Your task to perform on an android device: Open Google Chrome and open the bookmarks view Image 0: 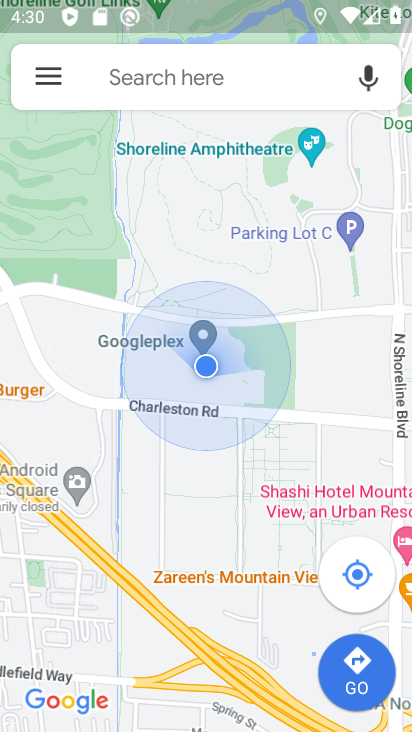
Step 0: press home button
Your task to perform on an android device: Open Google Chrome and open the bookmarks view Image 1: 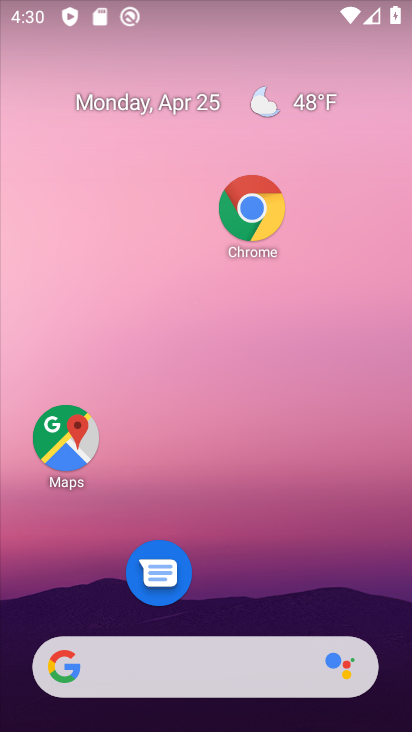
Step 1: click (249, 242)
Your task to perform on an android device: Open Google Chrome and open the bookmarks view Image 2: 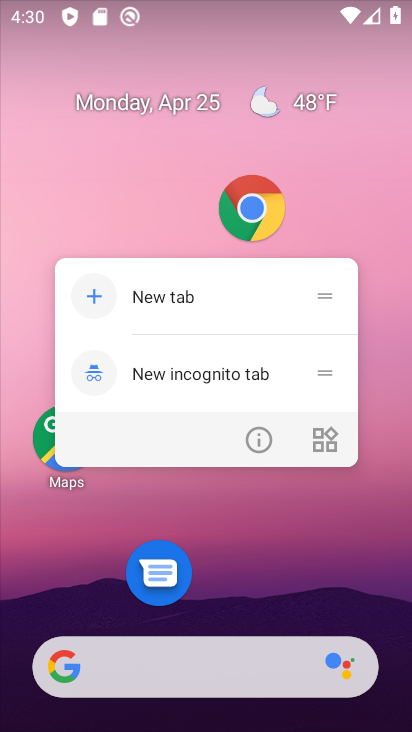
Step 2: click (249, 242)
Your task to perform on an android device: Open Google Chrome and open the bookmarks view Image 3: 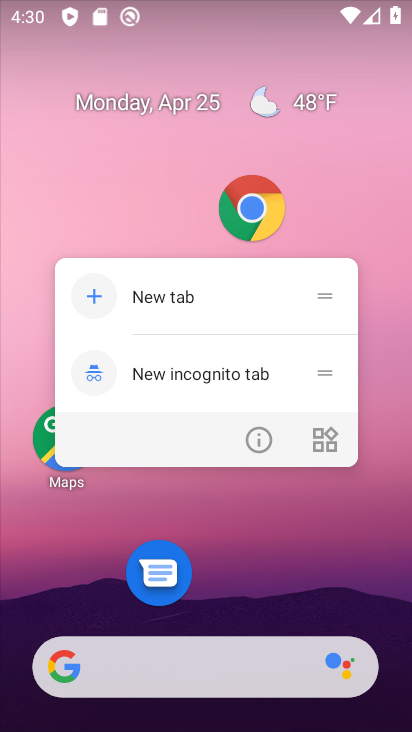
Step 3: click (249, 193)
Your task to perform on an android device: Open Google Chrome and open the bookmarks view Image 4: 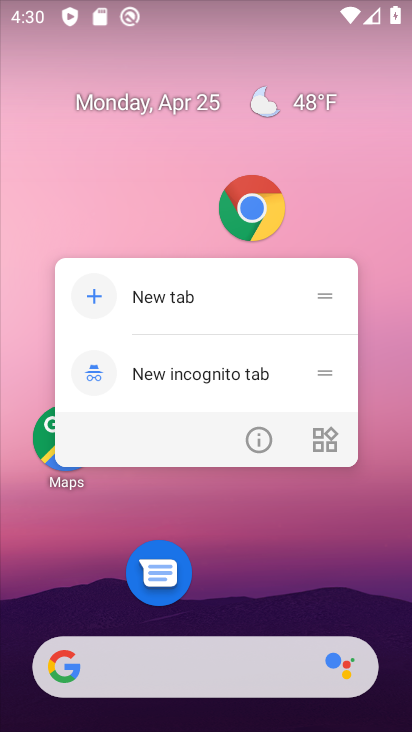
Step 4: click (249, 193)
Your task to perform on an android device: Open Google Chrome and open the bookmarks view Image 5: 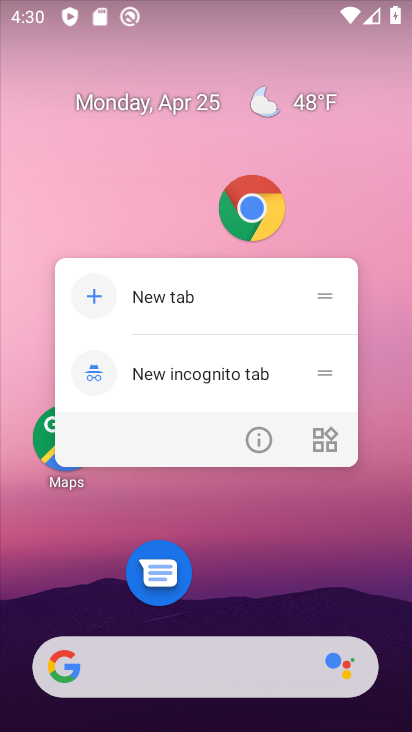
Step 5: click (247, 211)
Your task to perform on an android device: Open Google Chrome and open the bookmarks view Image 6: 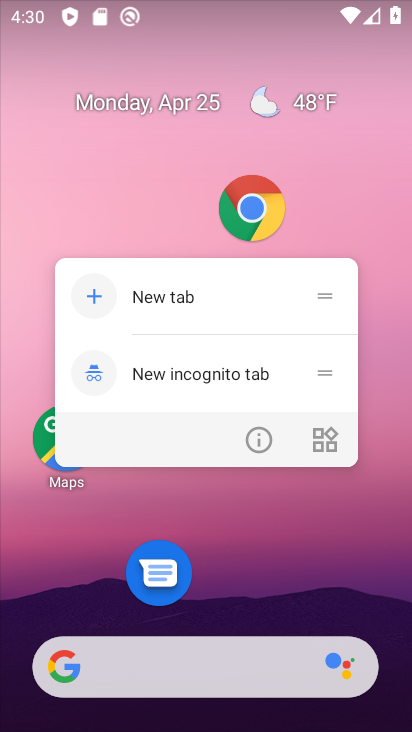
Step 6: click (248, 200)
Your task to perform on an android device: Open Google Chrome and open the bookmarks view Image 7: 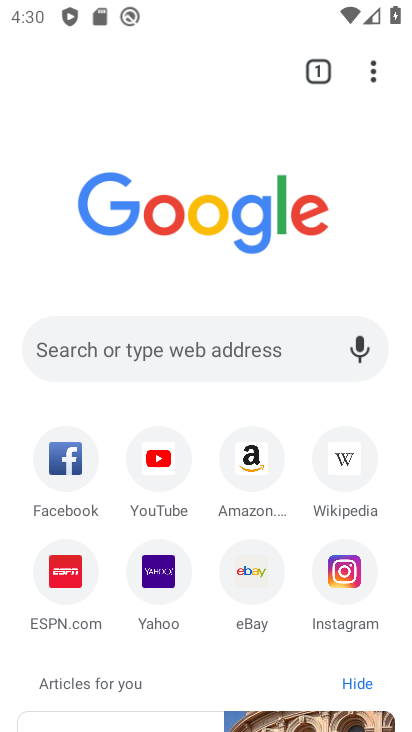
Step 7: click (374, 72)
Your task to perform on an android device: Open Google Chrome and open the bookmarks view Image 8: 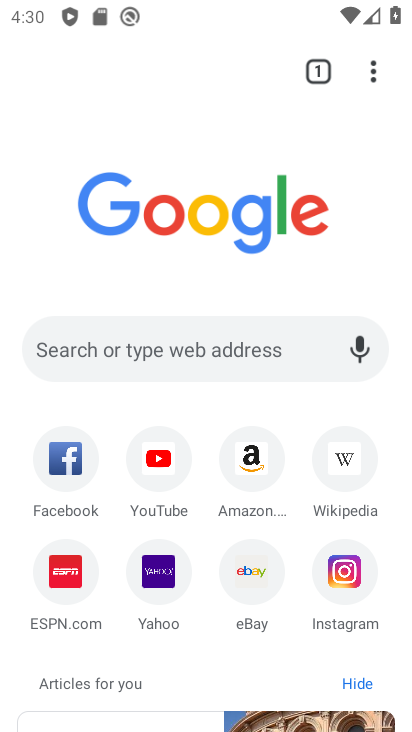
Step 8: task complete